Your task to perform on an android device: clear all cookies in the chrome app Image 0: 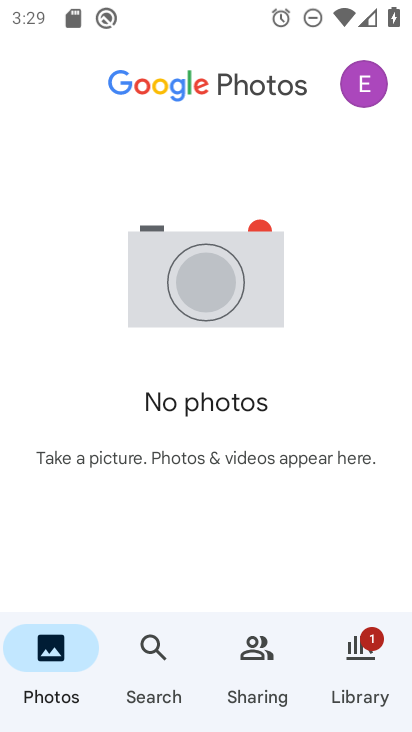
Step 0: press home button
Your task to perform on an android device: clear all cookies in the chrome app Image 1: 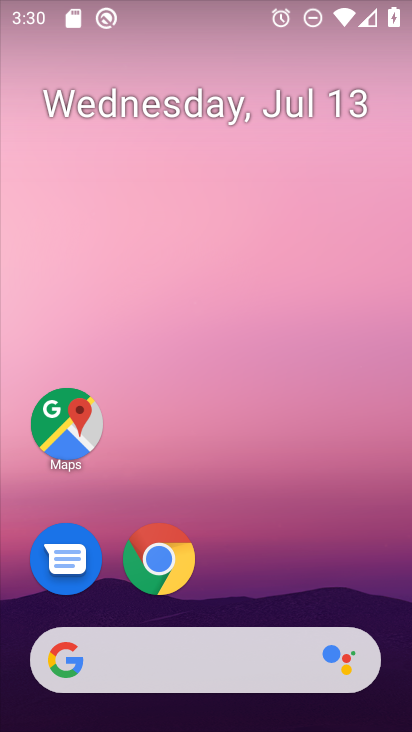
Step 1: drag from (352, 584) to (376, 127)
Your task to perform on an android device: clear all cookies in the chrome app Image 2: 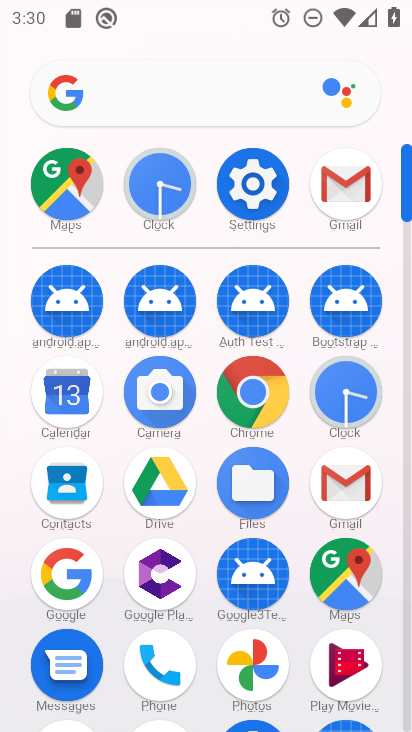
Step 2: click (272, 401)
Your task to perform on an android device: clear all cookies in the chrome app Image 3: 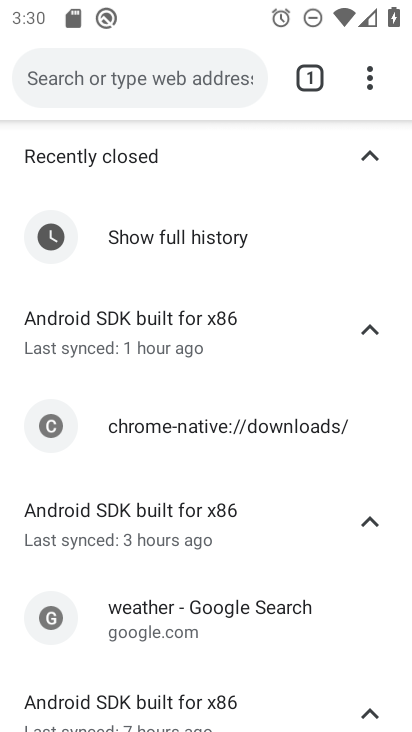
Step 3: click (372, 73)
Your task to perform on an android device: clear all cookies in the chrome app Image 4: 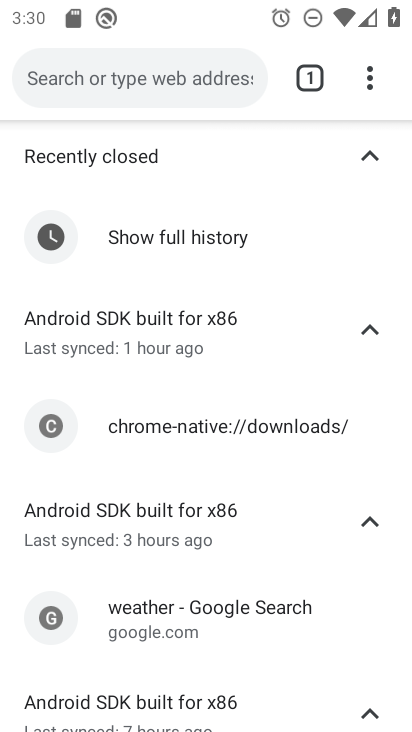
Step 4: click (368, 90)
Your task to perform on an android device: clear all cookies in the chrome app Image 5: 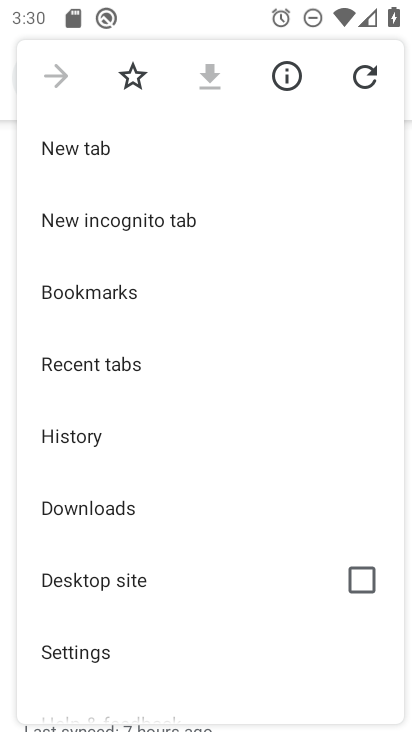
Step 5: drag from (276, 475) to (271, 355)
Your task to perform on an android device: clear all cookies in the chrome app Image 6: 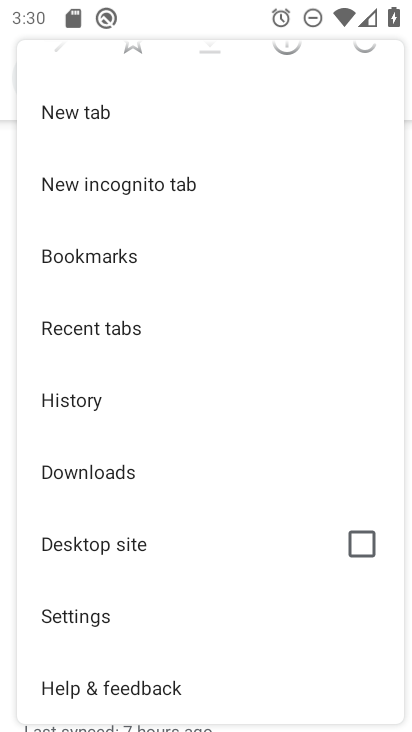
Step 6: click (94, 627)
Your task to perform on an android device: clear all cookies in the chrome app Image 7: 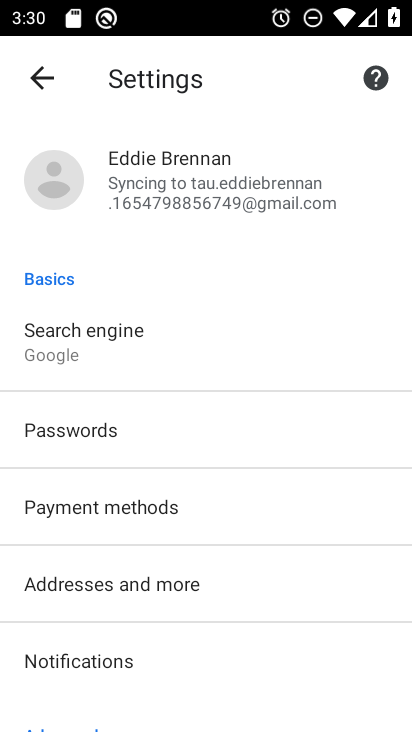
Step 7: drag from (300, 577) to (303, 474)
Your task to perform on an android device: clear all cookies in the chrome app Image 8: 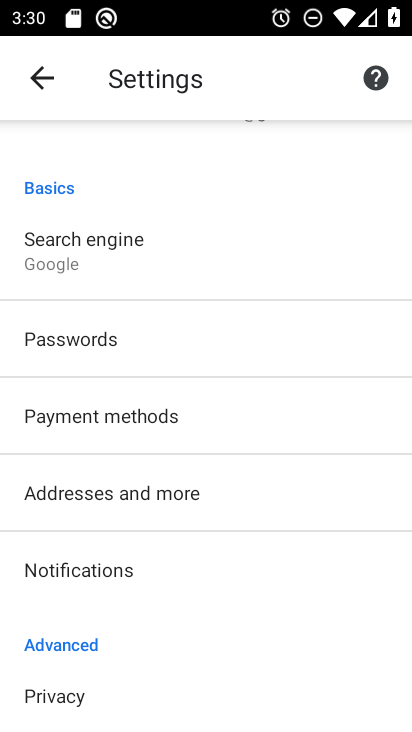
Step 8: drag from (295, 584) to (308, 498)
Your task to perform on an android device: clear all cookies in the chrome app Image 9: 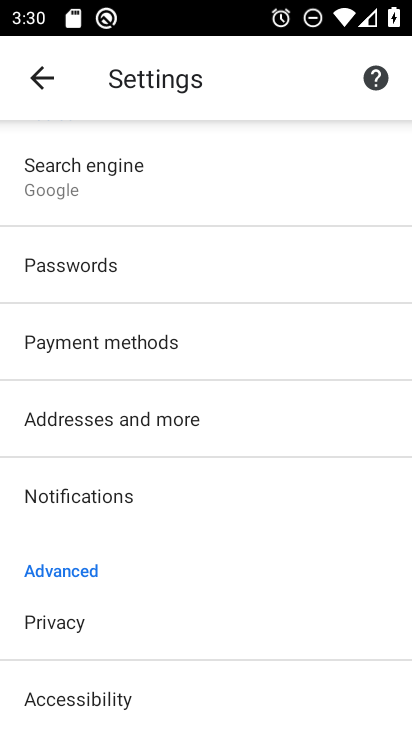
Step 9: drag from (297, 612) to (316, 467)
Your task to perform on an android device: clear all cookies in the chrome app Image 10: 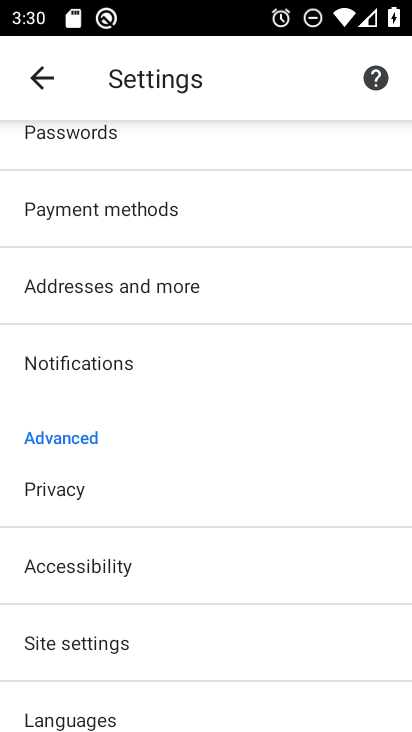
Step 10: drag from (307, 608) to (307, 491)
Your task to perform on an android device: clear all cookies in the chrome app Image 11: 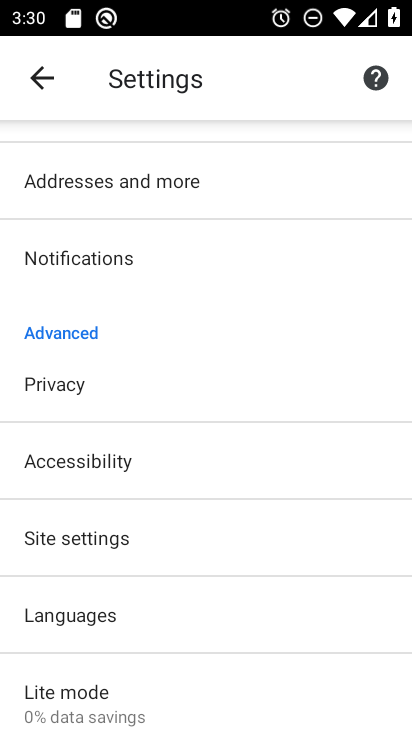
Step 11: click (215, 388)
Your task to perform on an android device: clear all cookies in the chrome app Image 12: 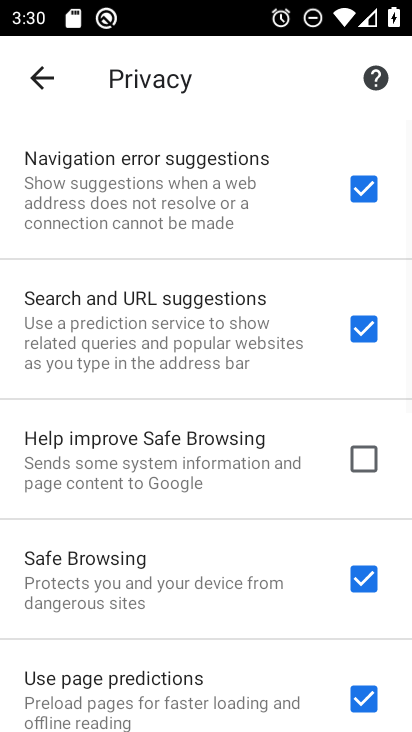
Step 12: drag from (250, 530) to (285, 324)
Your task to perform on an android device: clear all cookies in the chrome app Image 13: 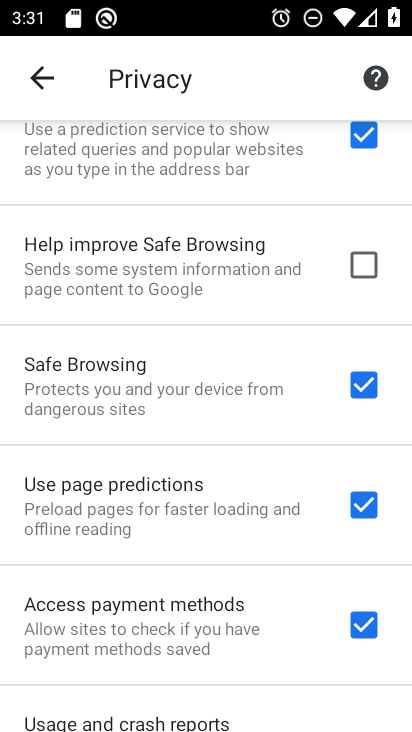
Step 13: drag from (293, 582) to (298, 424)
Your task to perform on an android device: clear all cookies in the chrome app Image 14: 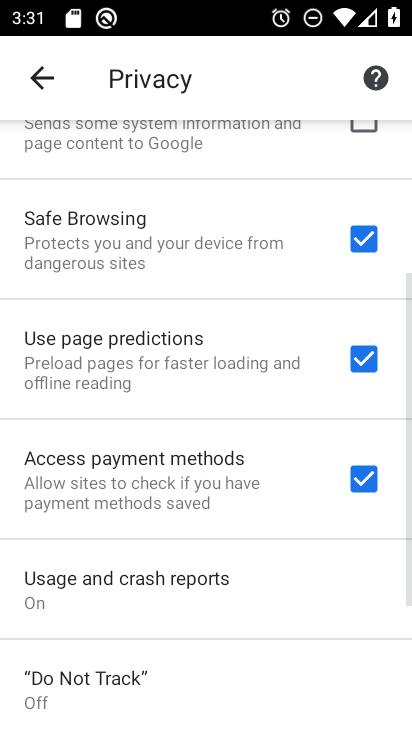
Step 14: drag from (298, 611) to (301, 458)
Your task to perform on an android device: clear all cookies in the chrome app Image 15: 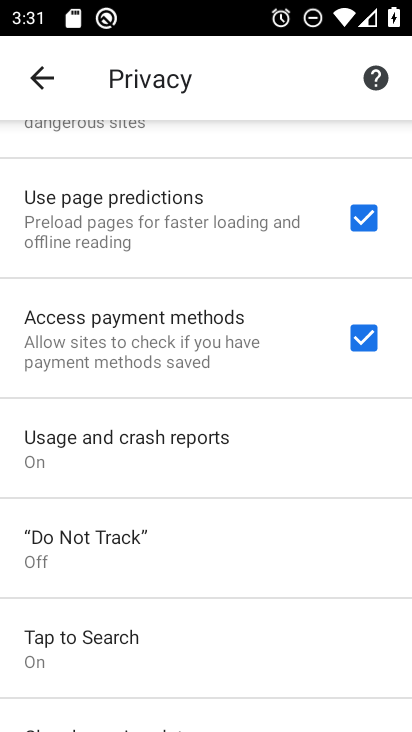
Step 15: drag from (304, 640) to (302, 447)
Your task to perform on an android device: clear all cookies in the chrome app Image 16: 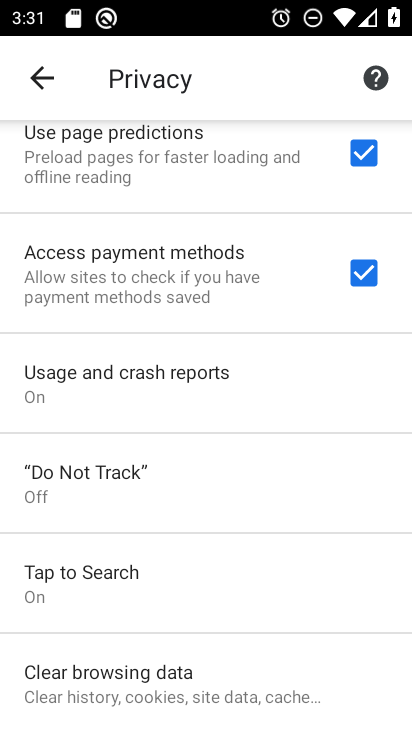
Step 16: click (237, 692)
Your task to perform on an android device: clear all cookies in the chrome app Image 17: 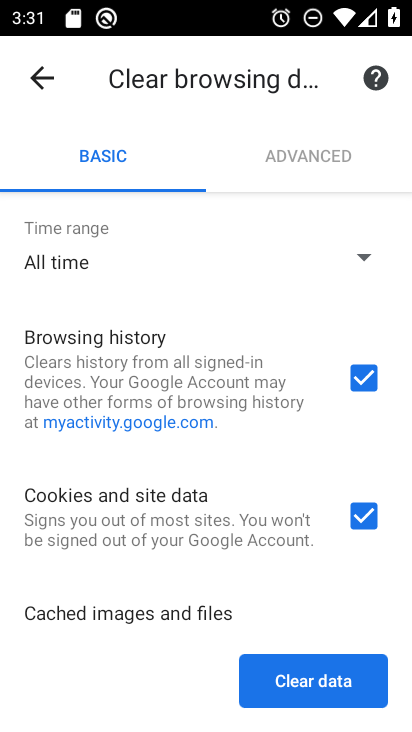
Step 17: click (300, 671)
Your task to perform on an android device: clear all cookies in the chrome app Image 18: 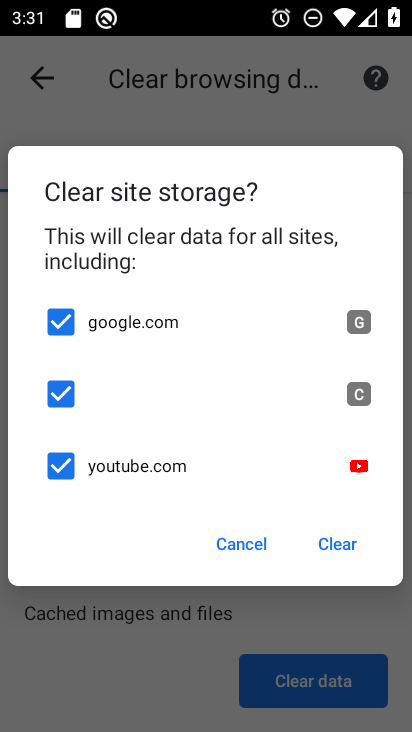
Step 18: click (329, 546)
Your task to perform on an android device: clear all cookies in the chrome app Image 19: 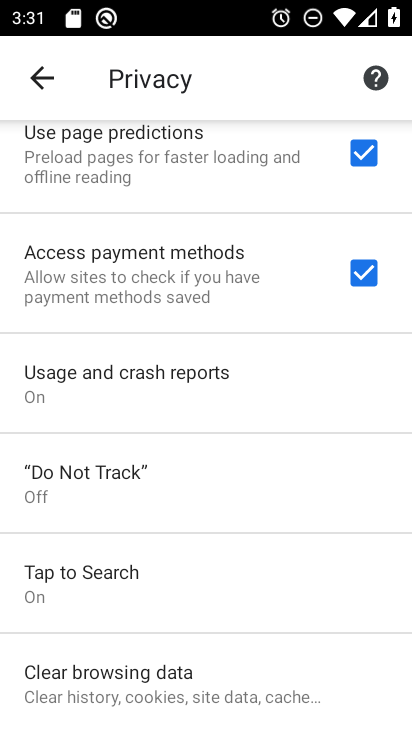
Step 19: task complete